Your task to perform on an android device: Open the calendar and show me this week's events? Image 0: 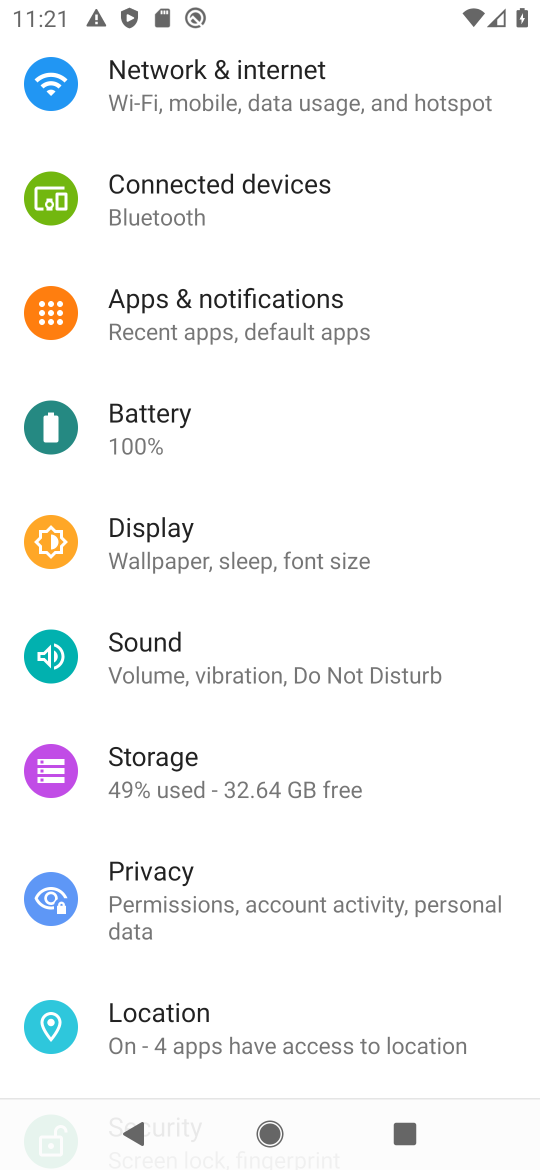
Step 0: press home button
Your task to perform on an android device: Open the calendar and show me this week's events? Image 1: 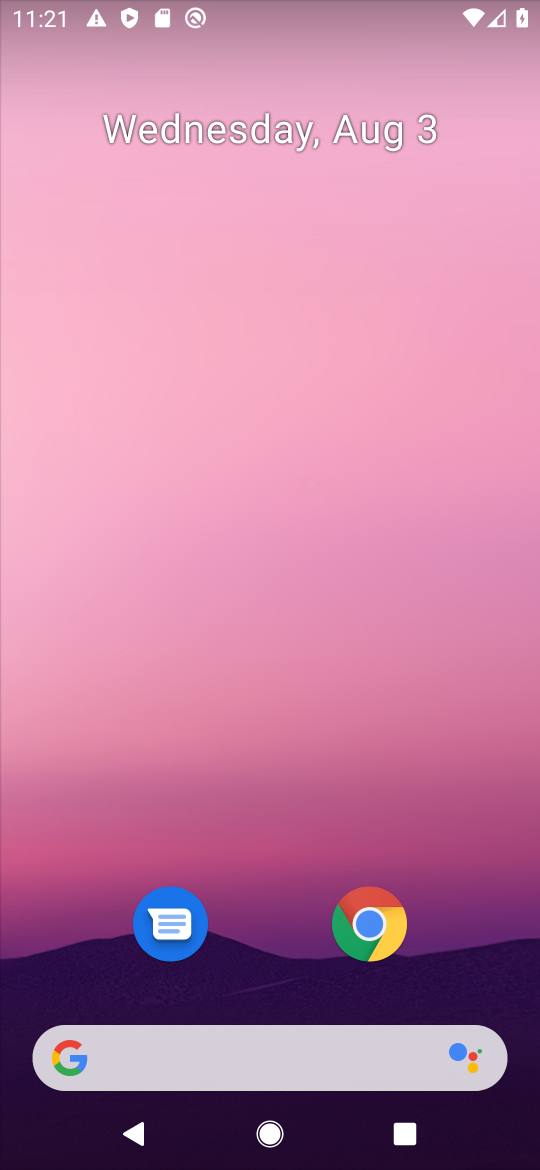
Step 1: drag from (203, 759) to (391, 108)
Your task to perform on an android device: Open the calendar and show me this week's events? Image 2: 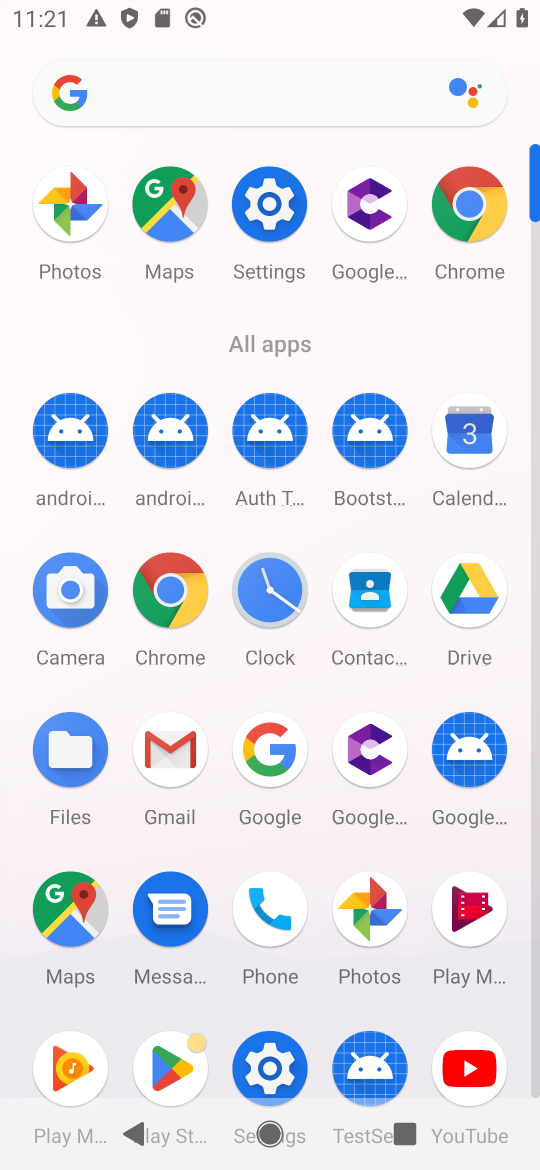
Step 2: click (479, 448)
Your task to perform on an android device: Open the calendar and show me this week's events? Image 3: 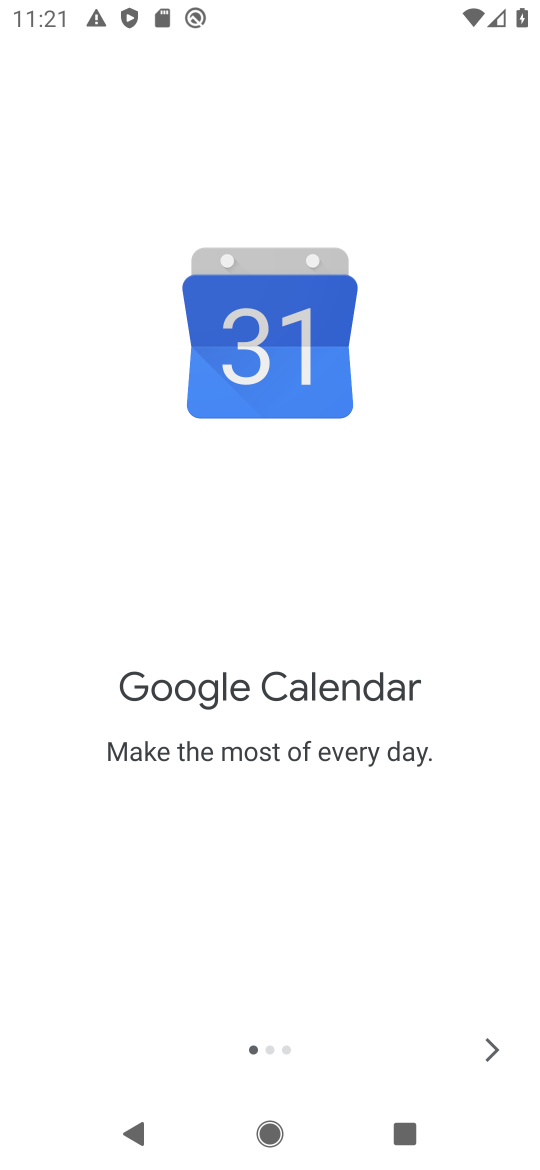
Step 3: click (507, 1057)
Your task to perform on an android device: Open the calendar and show me this week's events? Image 4: 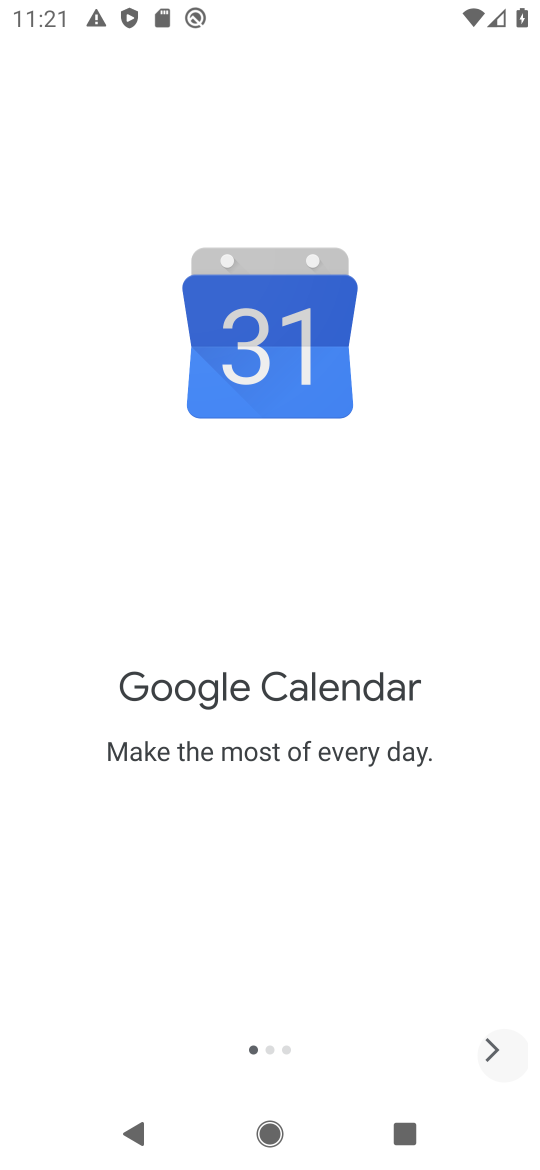
Step 4: click (505, 1054)
Your task to perform on an android device: Open the calendar and show me this week's events? Image 5: 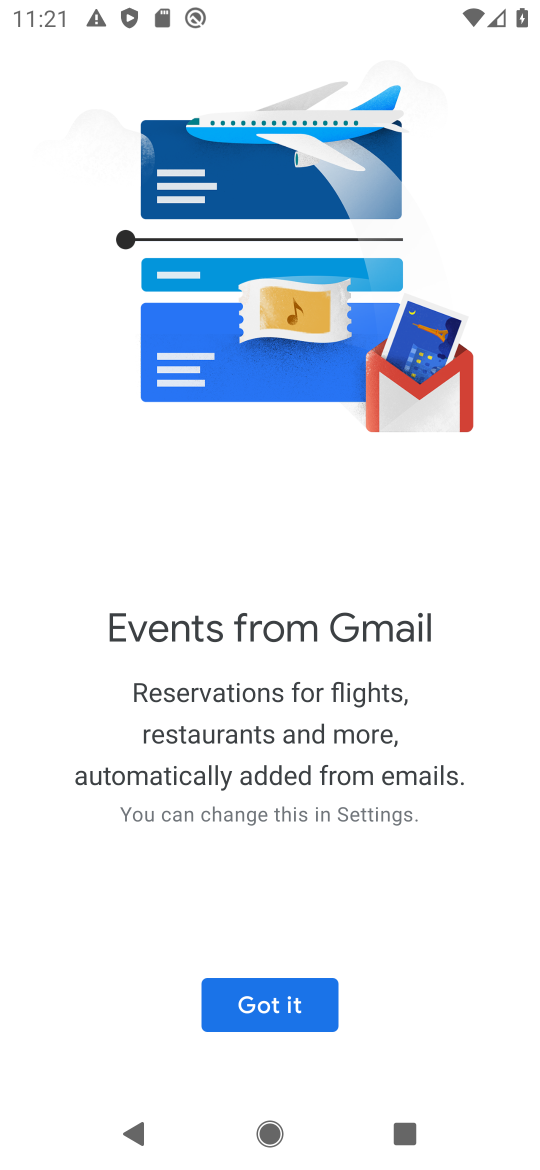
Step 5: click (277, 999)
Your task to perform on an android device: Open the calendar and show me this week's events? Image 6: 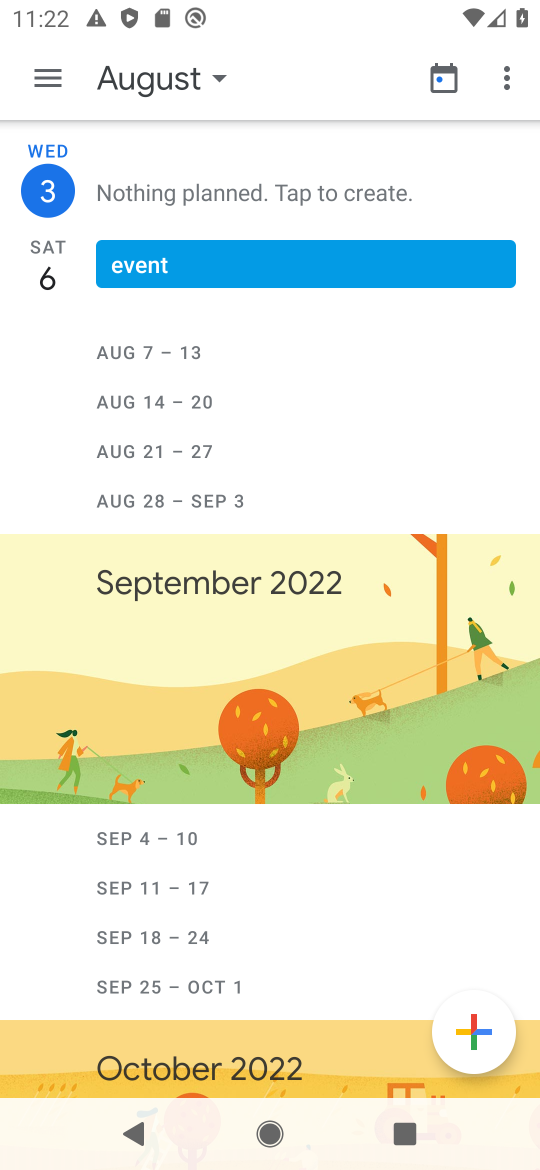
Step 6: click (214, 74)
Your task to perform on an android device: Open the calendar and show me this week's events? Image 7: 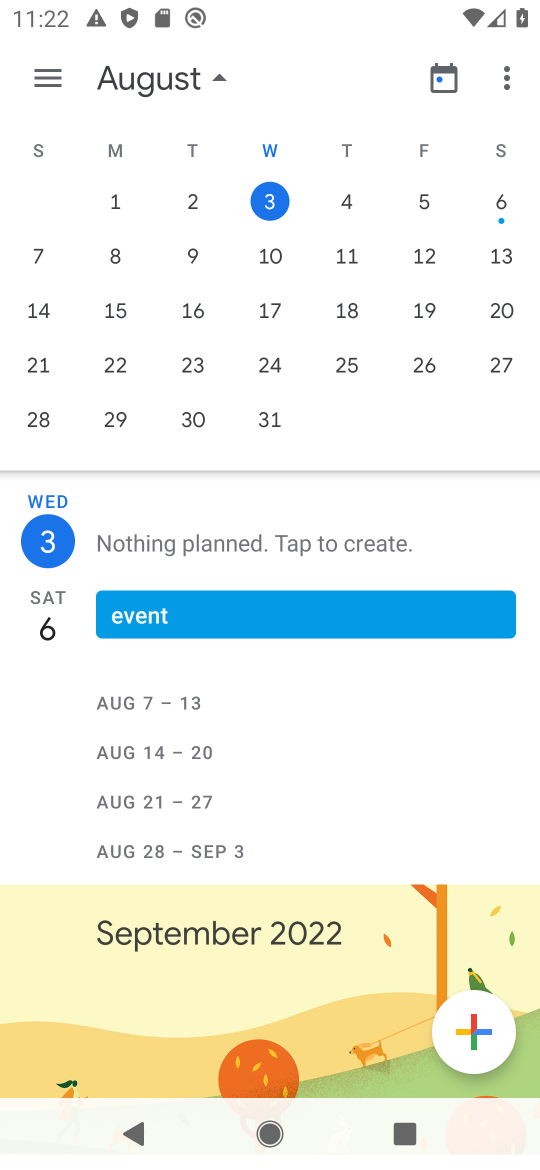
Step 7: task complete